Your task to perform on an android device: Look up the best rated headphones on Walmart. Image 0: 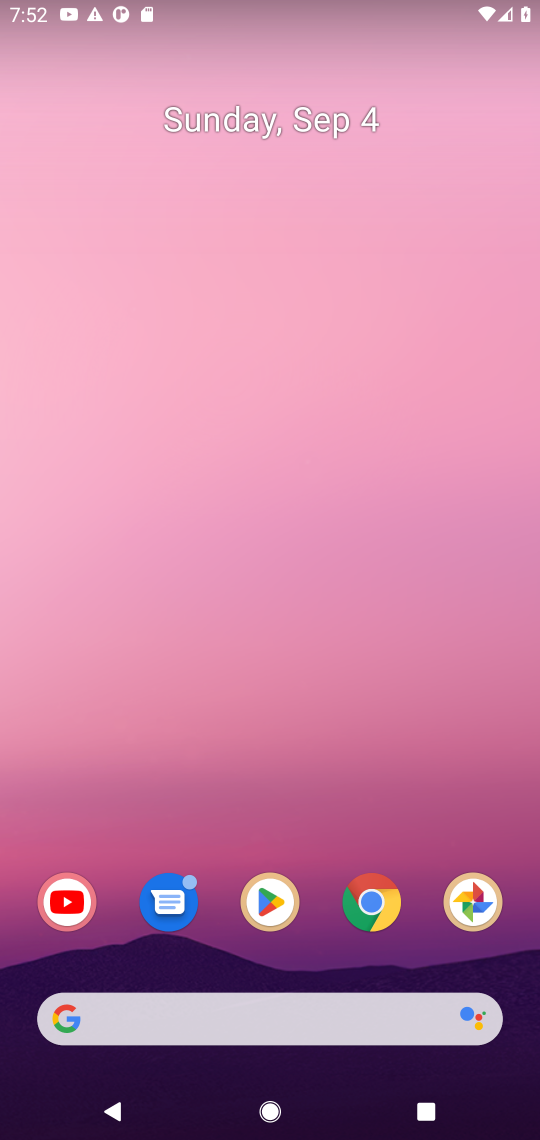
Step 0: click (350, 942)
Your task to perform on an android device: Look up the best rated headphones on Walmart. Image 1: 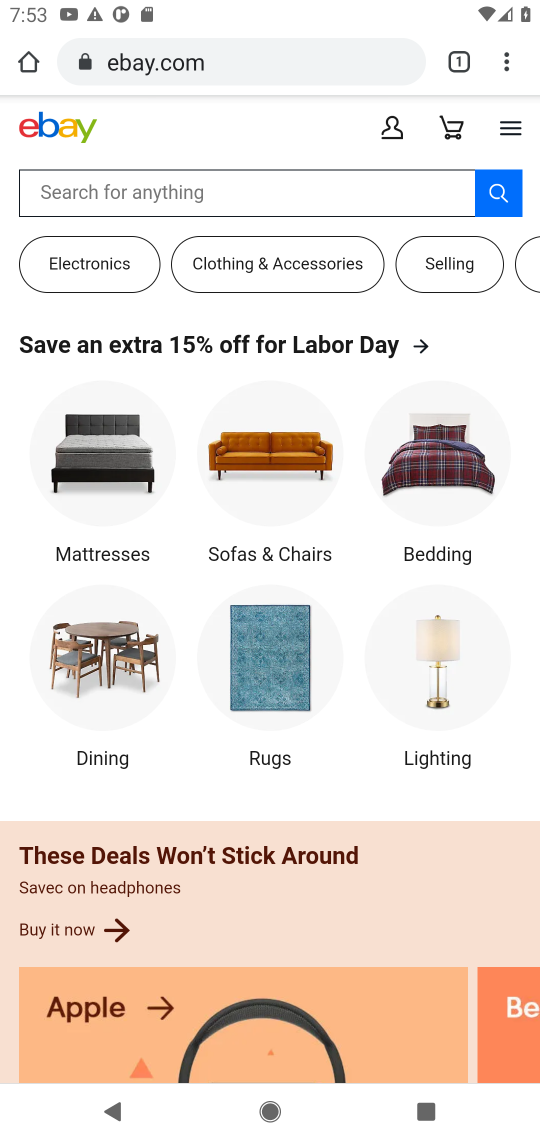
Step 1: task complete